Your task to perform on an android device: Go to sound settings Image 0: 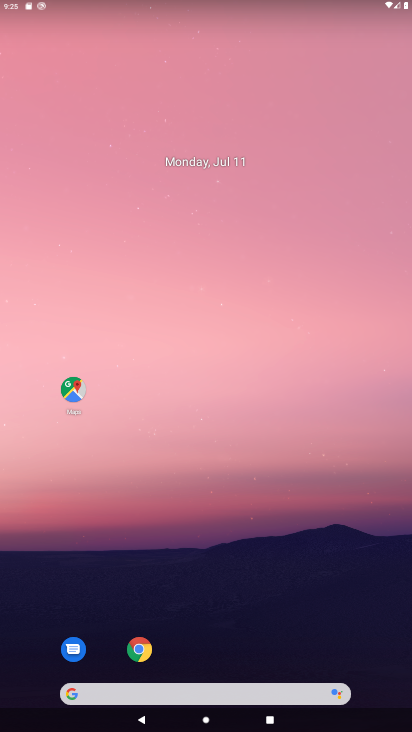
Step 0: drag from (243, 631) to (200, 98)
Your task to perform on an android device: Go to sound settings Image 1: 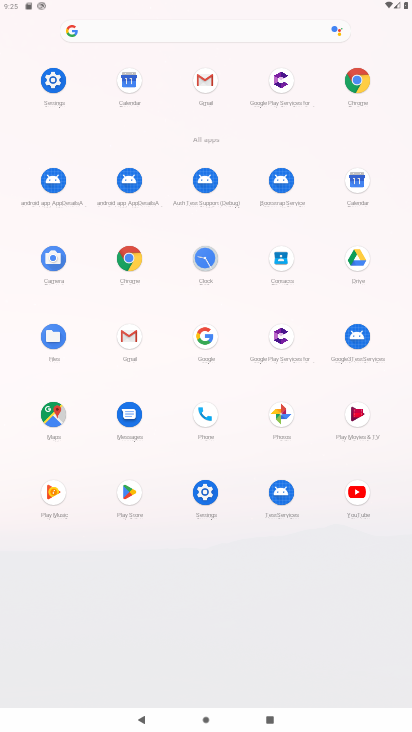
Step 1: click (58, 79)
Your task to perform on an android device: Go to sound settings Image 2: 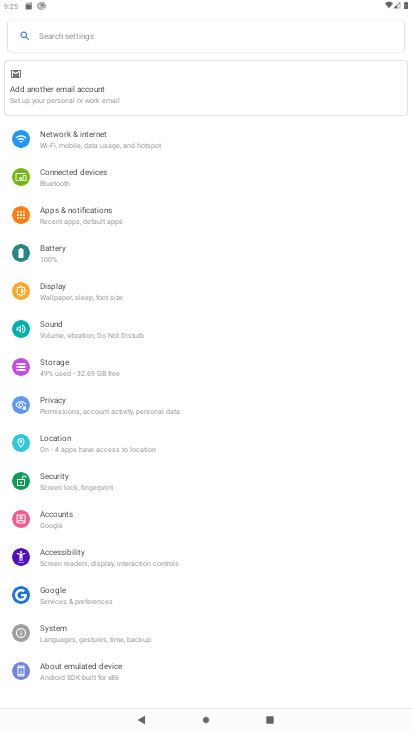
Step 2: click (87, 327)
Your task to perform on an android device: Go to sound settings Image 3: 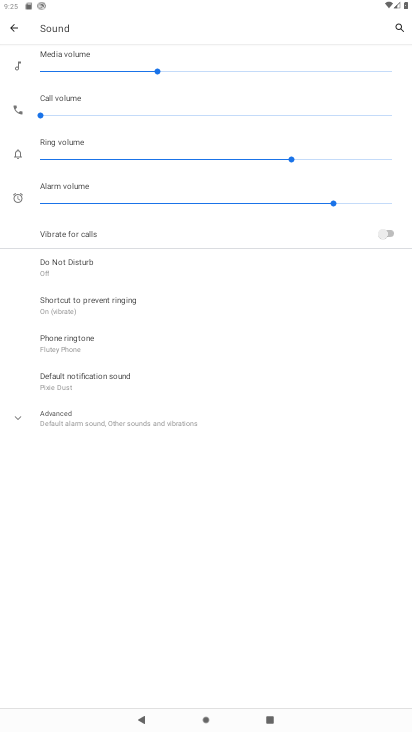
Step 3: task complete